Your task to perform on an android device: open app "WhatsApp Messenger" (install if not already installed), go to login, and select forgot password Image 0: 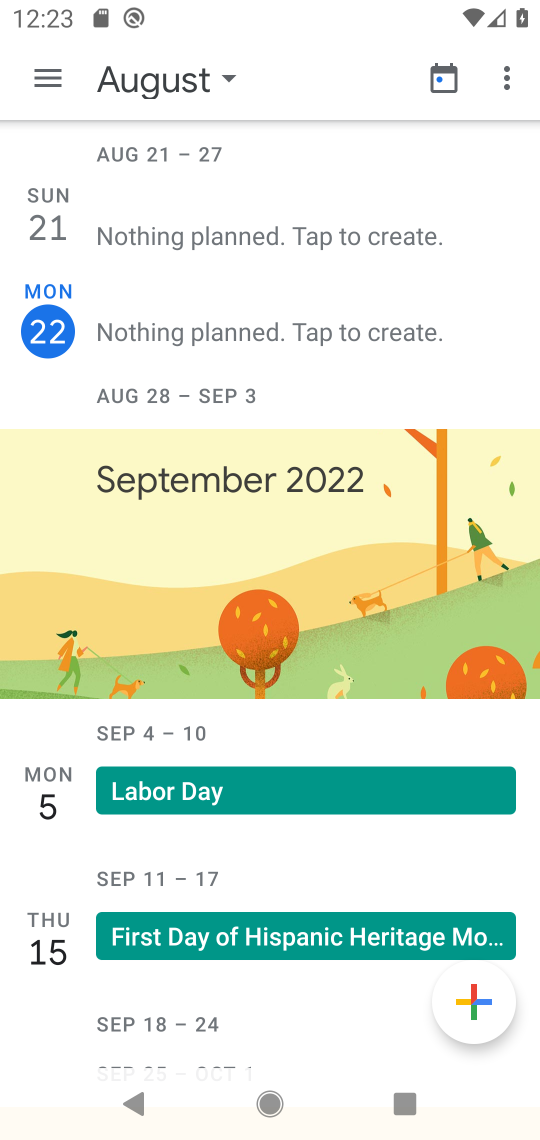
Step 0: press home button
Your task to perform on an android device: open app "WhatsApp Messenger" (install if not already installed), go to login, and select forgot password Image 1: 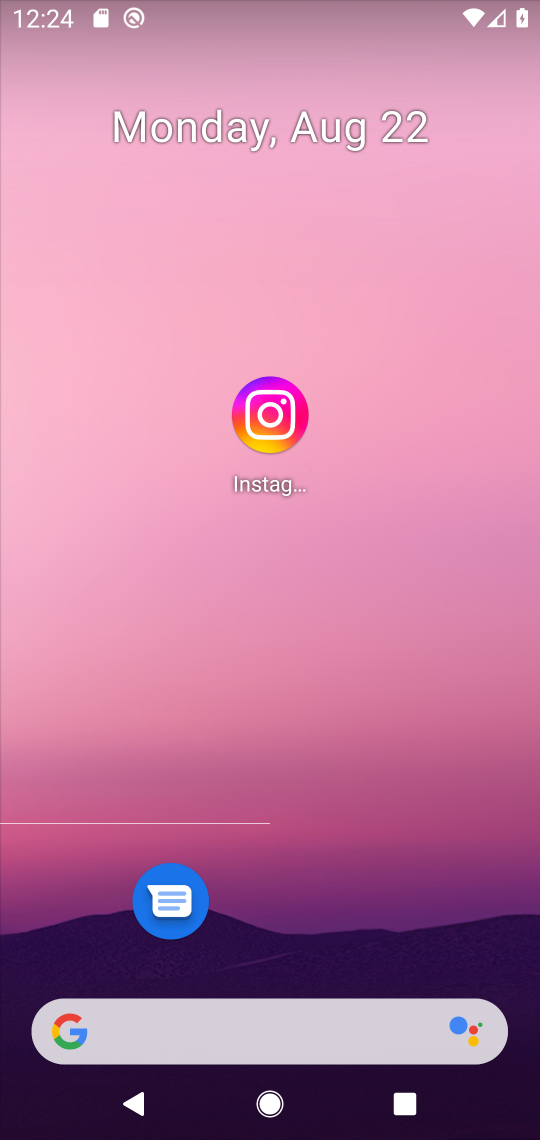
Step 1: drag from (370, 929) to (432, 36)
Your task to perform on an android device: open app "WhatsApp Messenger" (install if not already installed), go to login, and select forgot password Image 2: 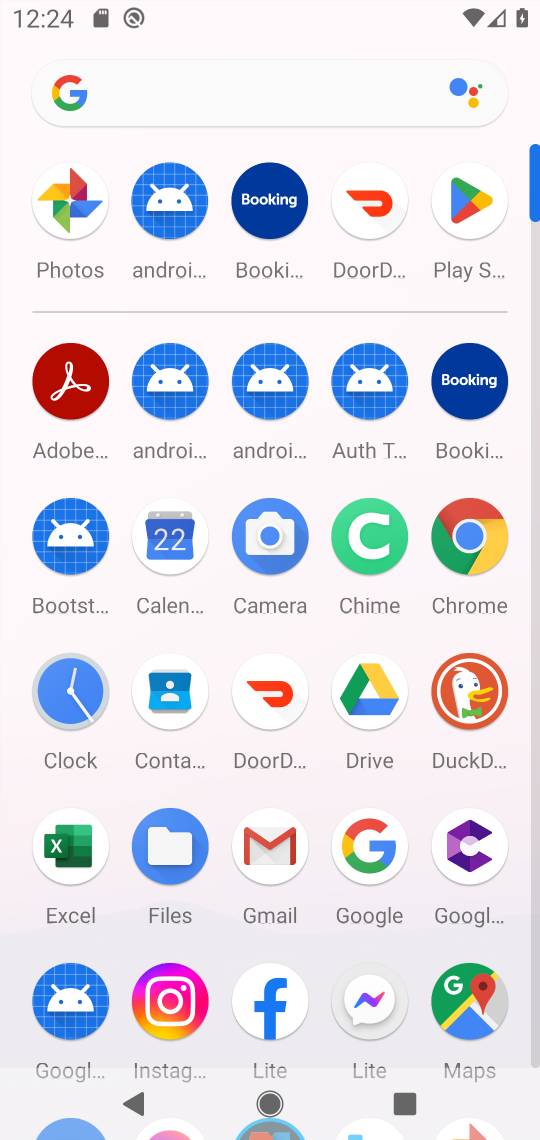
Step 2: click (456, 255)
Your task to perform on an android device: open app "WhatsApp Messenger" (install if not already installed), go to login, and select forgot password Image 3: 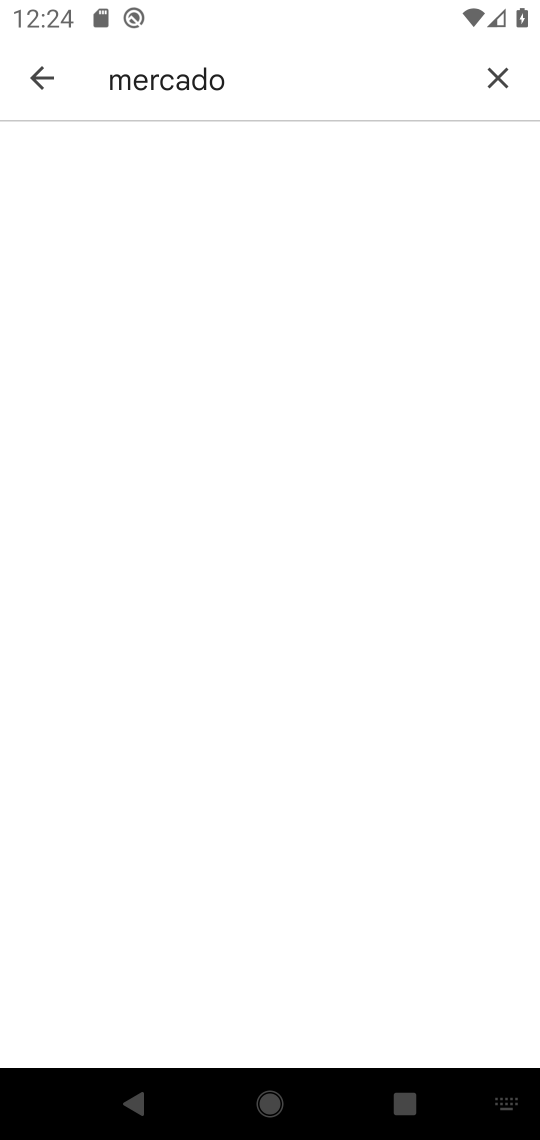
Step 3: click (486, 96)
Your task to perform on an android device: open app "WhatsApp Messenger" (install if not already installed), go to login, and select forgot password Image 4: 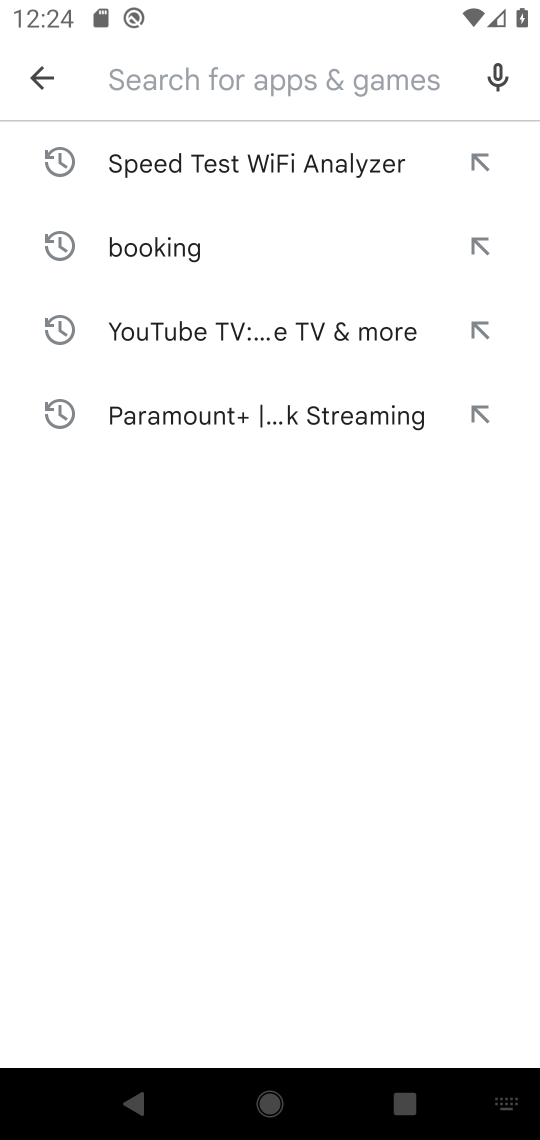
Step 4: type ""
Your task to perform on an android device: open app "WhatsApp Messenger" (install if not already installed), go to login, and select forgot password Image 5: 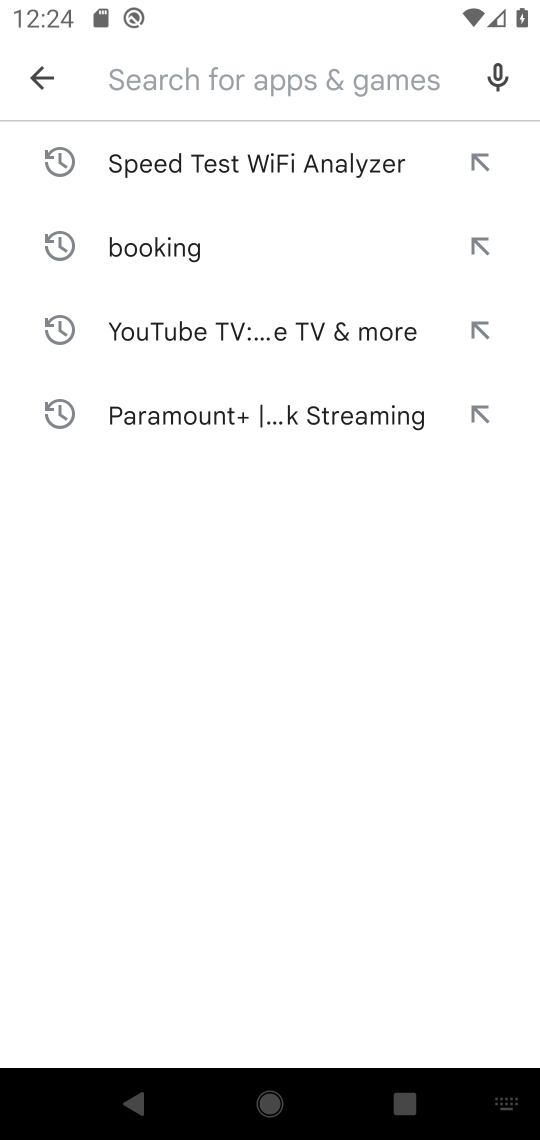
Step 5: type "whatsapp"
Your task to perform on an android device: open app "WhatsApp Messenger" (install if not already installed), go to login, and select forgot password Image 6: 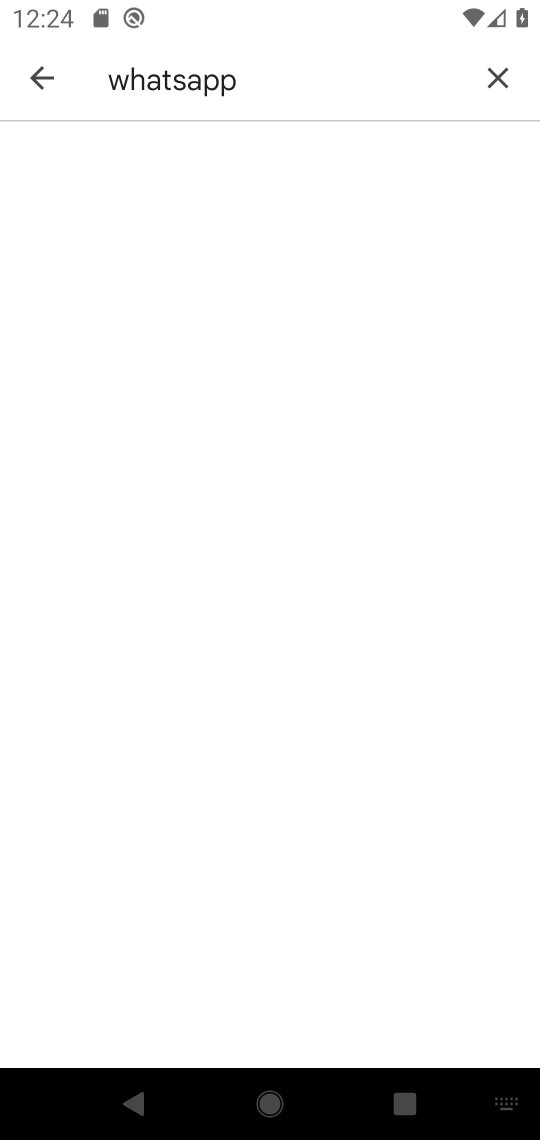
Step 6: task complete